Your task to perform on an android device: allow notifications from all sites in the chrome app Image 0: 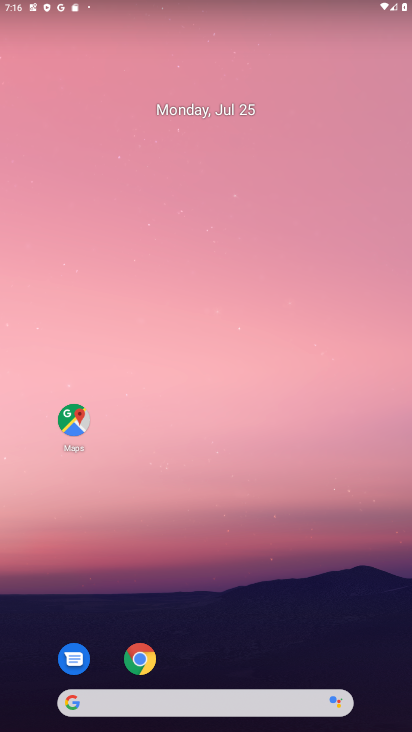
Step 0: click (145, 661)
Your task to perform on an android device: allow notifications from all sites in the chrome app Image 1: 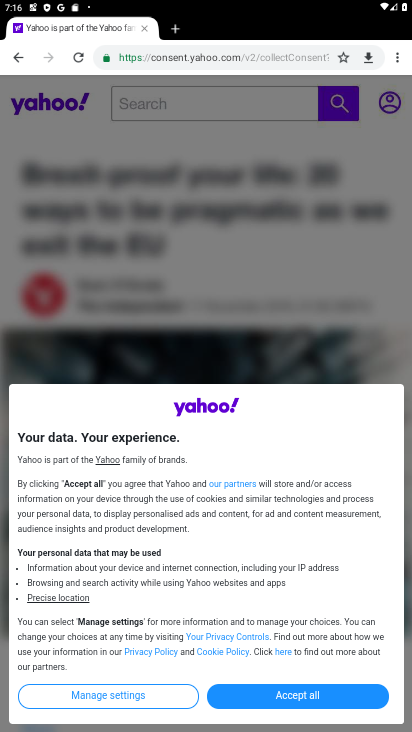
Step 1: click (397, 55)
Your task to perform on an android device: allow notifications from all sites in the chrome app Image 2: 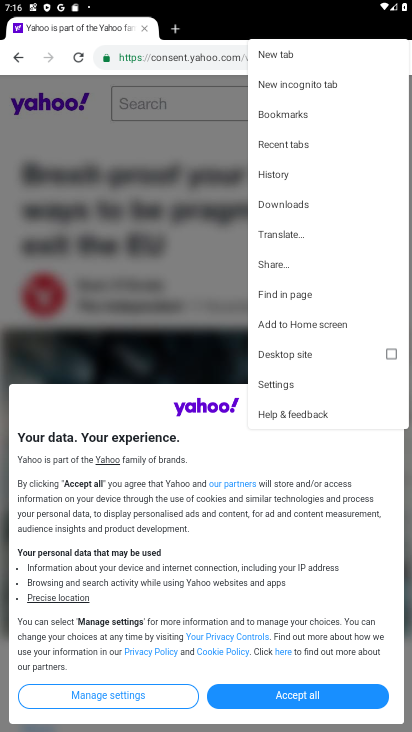
Step 2: click (268, 379)
Your task to perform on an android device: allow notifications from all sites in the chrome app Image 3: 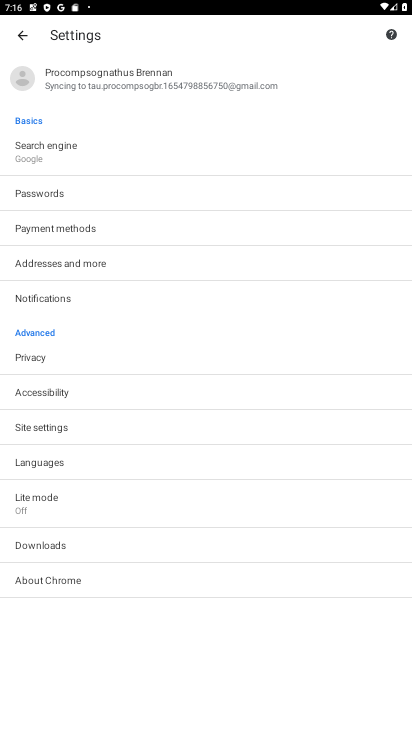
Step 3: click (43, 422)
Your task to perform on an android device: allow notifications from all sites in the chrome app Image 4: 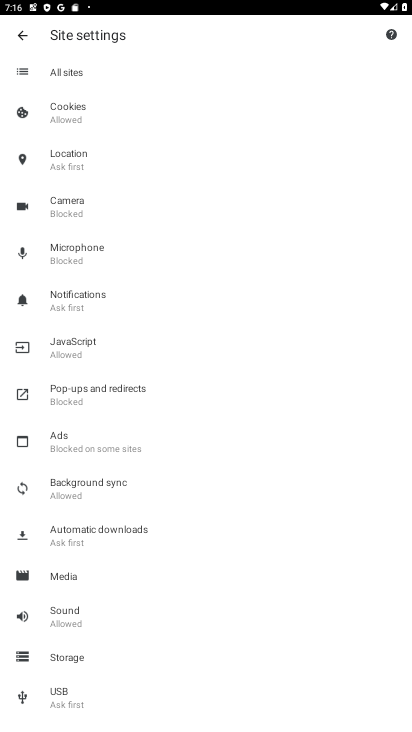
Step 4: click (107, 74)
Your task to perform on an android device: allow notifications from all sites in the chrome app Image 5: 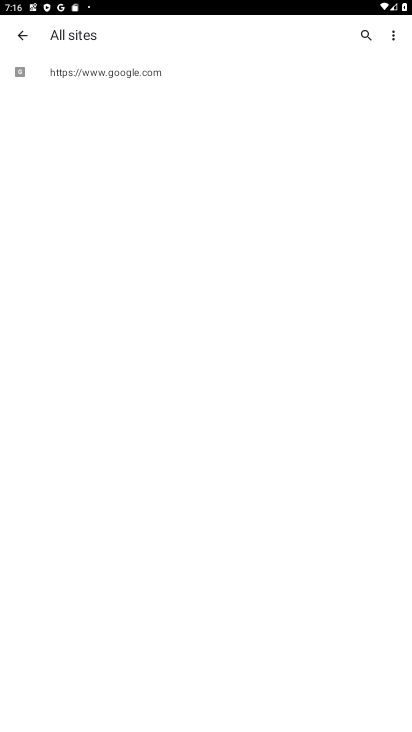
Step 5: click (107, 74)
Your task to perform on an android device: allow notifications from all sites in the chrome app Image 6: 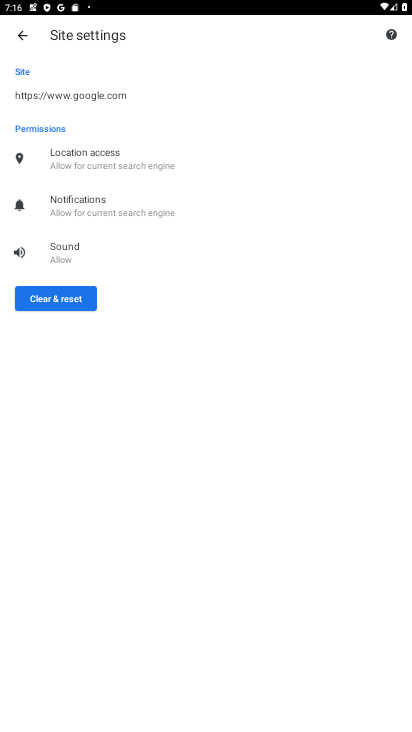
Step 6: click (93, 210)
Your task to perform on an android device: allow notifications from all sites in the chrome app Image 7: 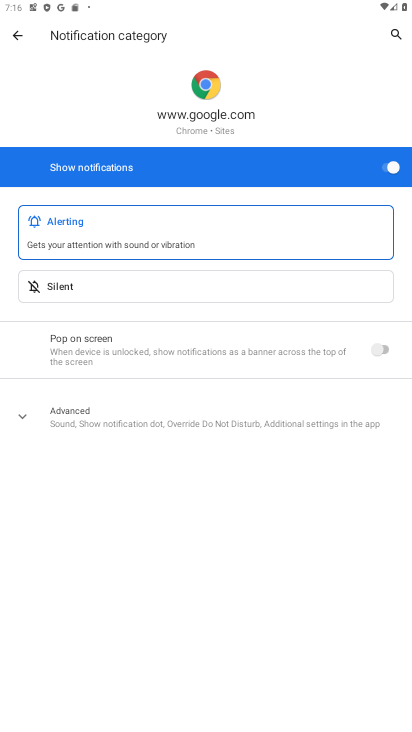
Step 7: task complete